Your task to perform on an android device: set default search engine in the chrome app Image 0: 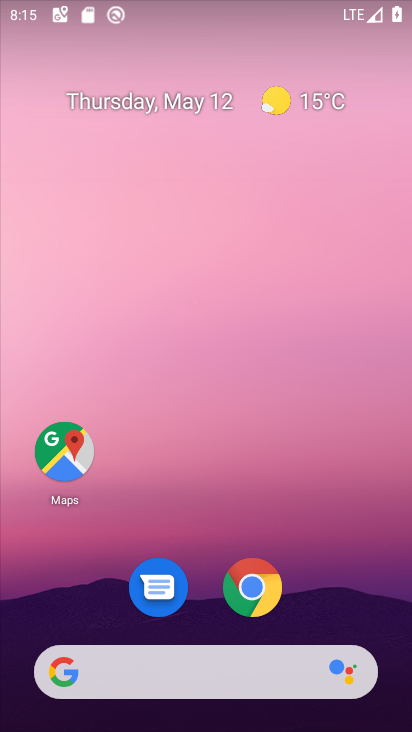
Step 0: drag from (388, 634) to (267, 101)
Your task to perform on an android device: set default search engine in the chrome app Image 1: 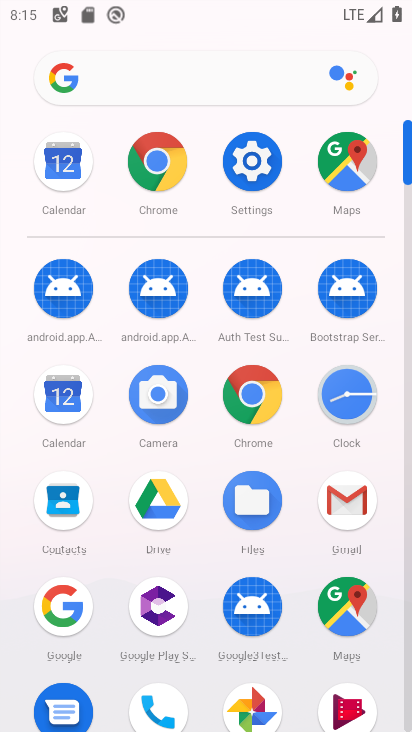
Step 1: click (260, 397)
Your task to perform on an android device: set default search engine in the chrome app Image 2: 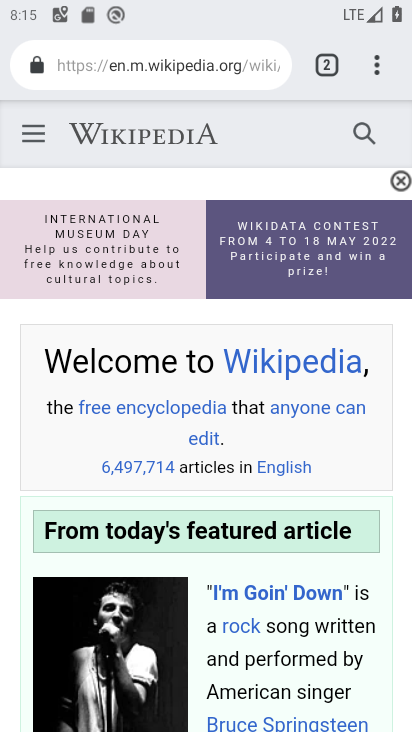
Step 2: press back button
Your task to perform on an android device: set default search engine in the chrome app Image 3: 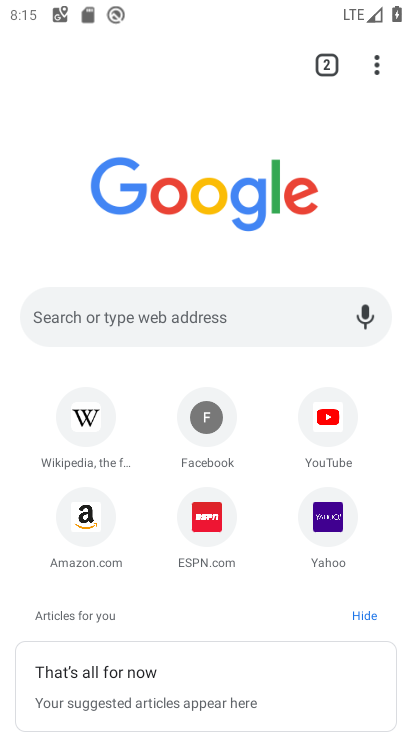
Step 3: click (377, 60)
Your task to perform on an android device: set default search engine in the chrome app Image 4: 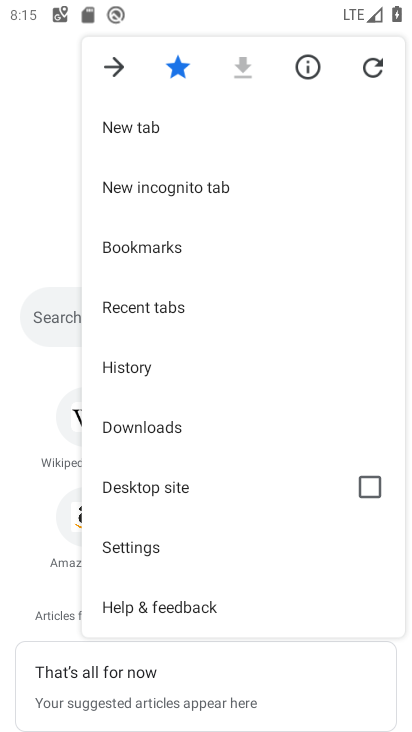
Step 4: click (172, 551)
Your task to perform on an android device: set default search engine in the chrome app Image 5: 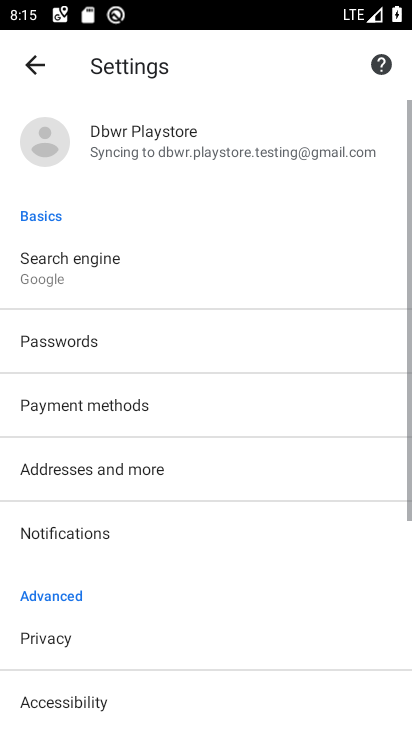
Step 5: click (96, 275)
Your task to perform on an android device: set default search engine in the chrome app Image 6: 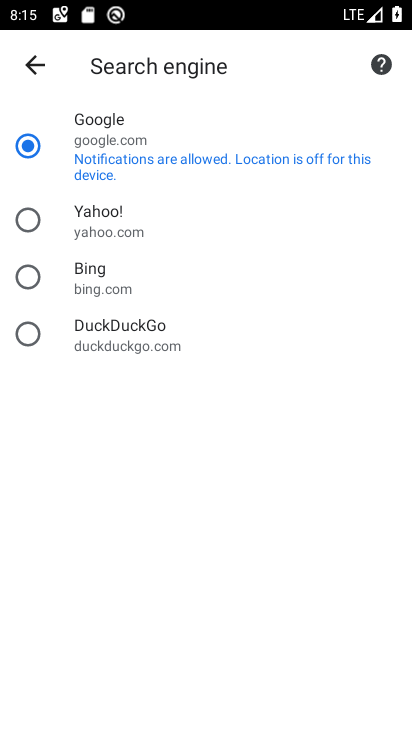
Step 6: click (102, 234)
Your task to perform on an android device: set default search engine in the chrome app Image 7: 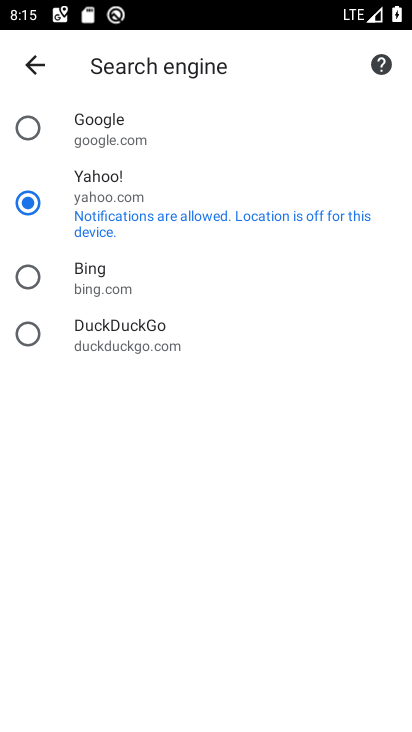
Step 7: task complete